Your task to perform on an android device: turn on translation in the chrome app Image 0: 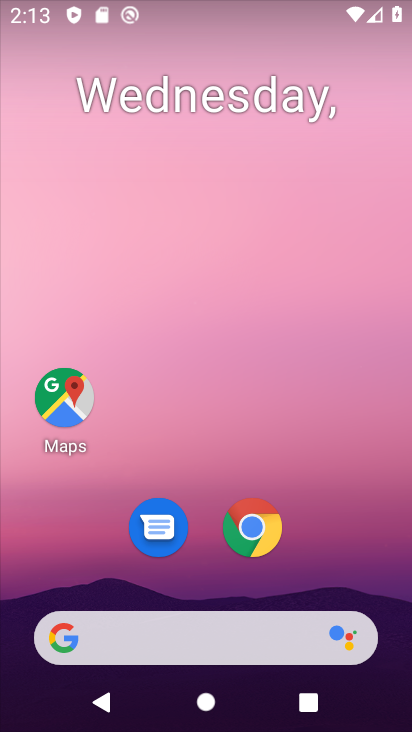
Step 0: click (253, 526)
Your task to perform on an android device: turn on translation in the chrome app Image 1: 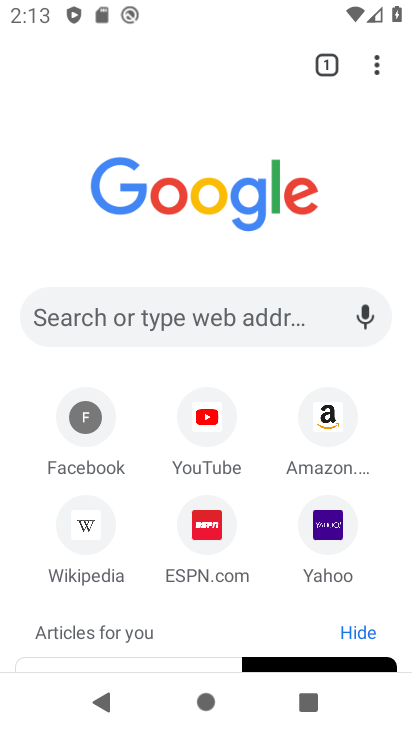
Step 1: click (379, 64)
Your task to perform on an android device: turn on translation in the chrome app Image 2: 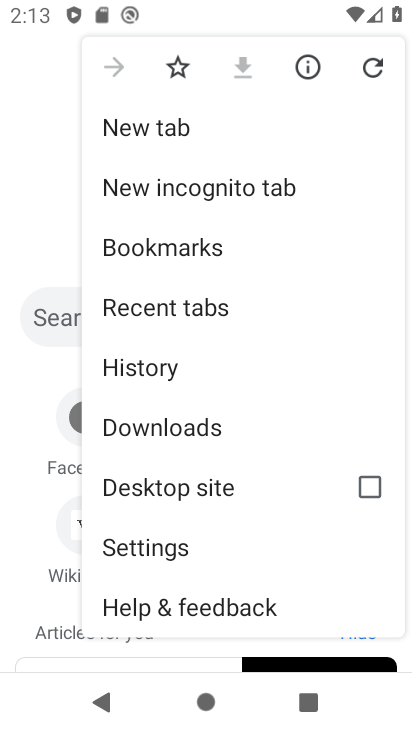
Step 2: click (164, 544)
Your task to perform on an android device: turn on translation in the chrome app Image 3: 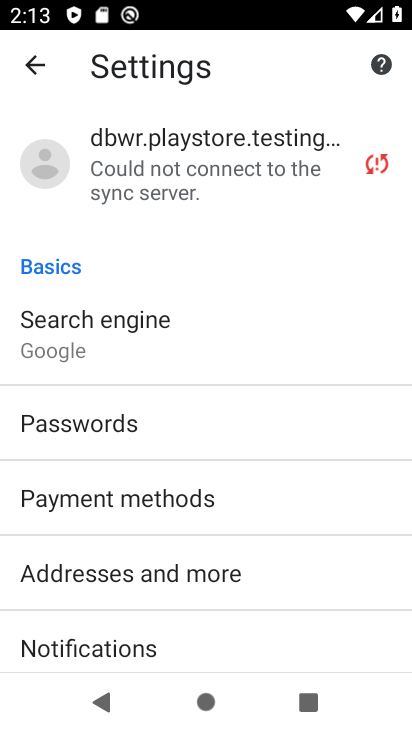
Step 3: drag from (127, 591) to (127, 447)
Your task to perform on an android device: turn on translation in the chrome app Image 4: 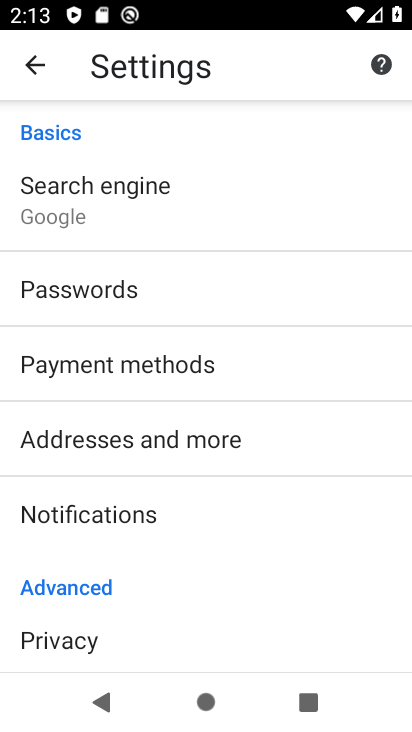
Step 4: drag from (69, 617) to (95, 412)
Your task to perform on an android device: turn on translation in the chrome app Image 5: 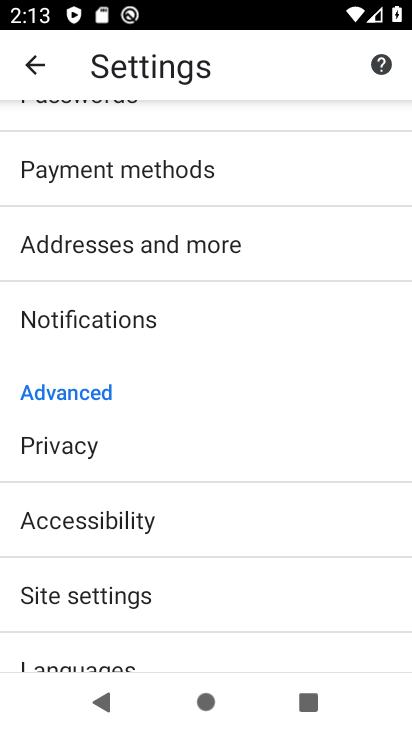
Step 5: drag from (194, 533) to (208, 335)
Your task to perform on an android device: turn on translation in the chrome app Image 6: 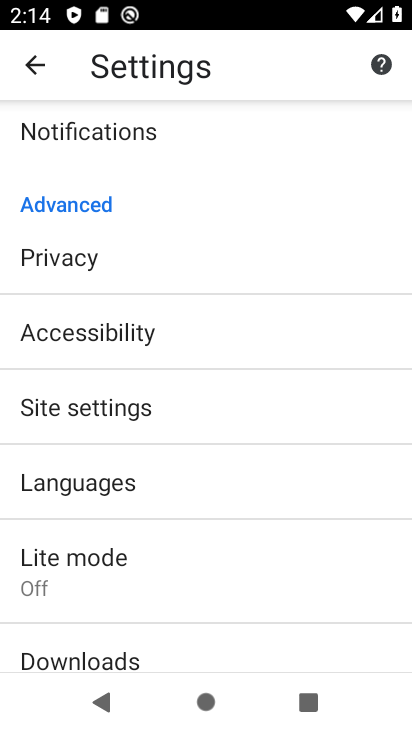
Step 6: click (102, 477)
Your task to perform on an android device: turn on translation in the chrome app Image 7: 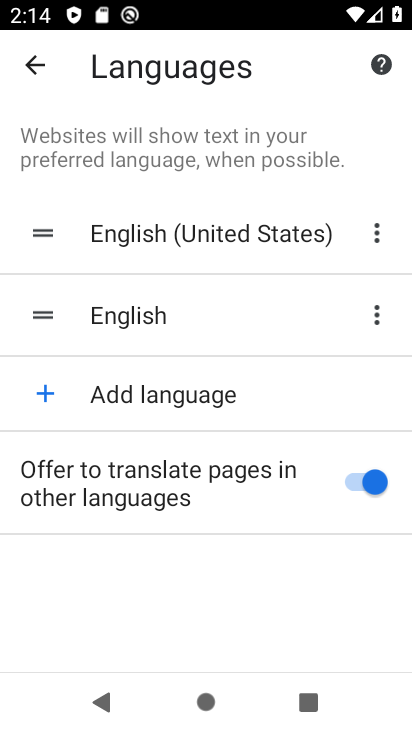
Step 7: task complete